Your task to perform on an android device: View the shopping cart on ebay. Add "razer blade" to the cart on ebay Image 0: 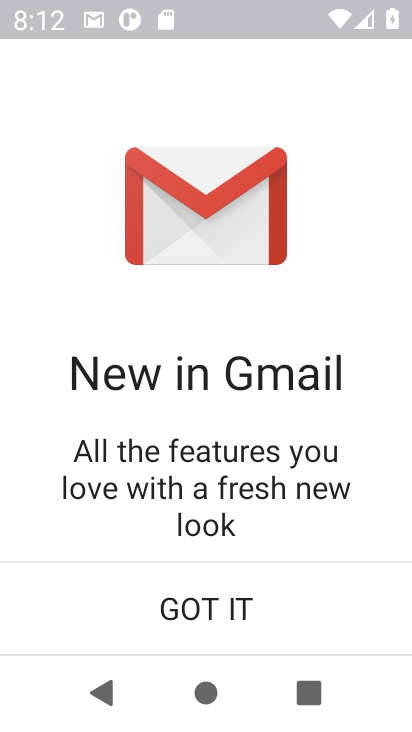
Step 0: click (281, 588)
Your task to perform on an android device: View the shopping cart on ebay. Add "razer blade" to the cart on ebay Image 1: 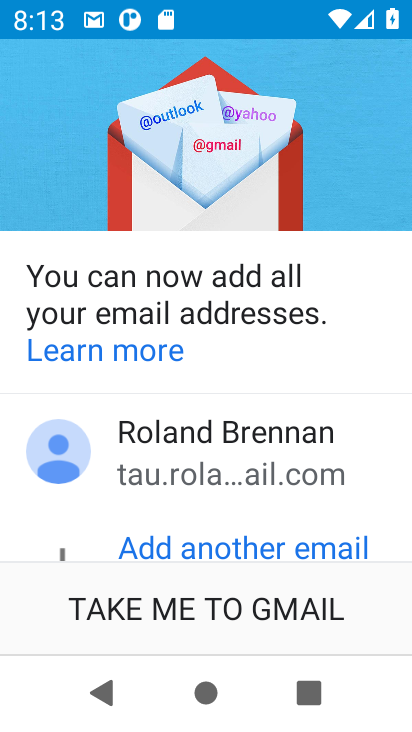
Step 1: press home button
Your task to perform on an android device: View the shopping cart on ebay. Add "razer blade" to the cart on ebay Image 2: 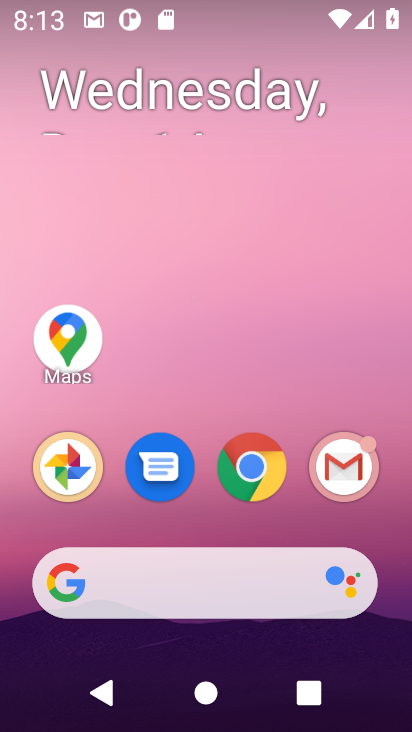
Step 2: click (256, 455)
Your task to perform on an android device: View the shopping cart on ebay. Add "razer blade" to the cart on ebay Image 3: 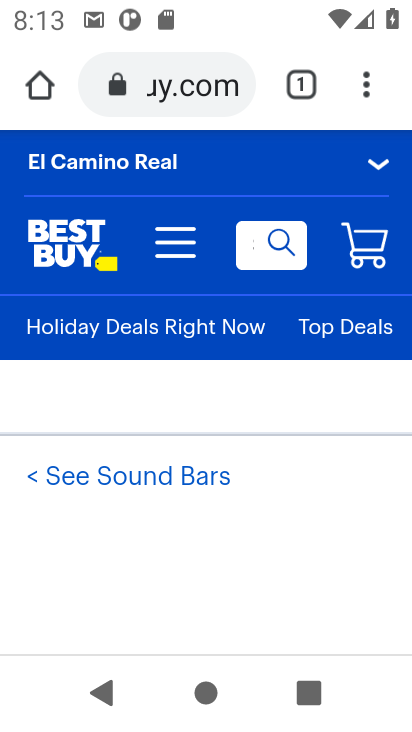
Step 3: click (211, 84)
Your task to perform on an android device: View the shopping cart on ebay. Add "razer blade" to the cart on ebay Image 4: 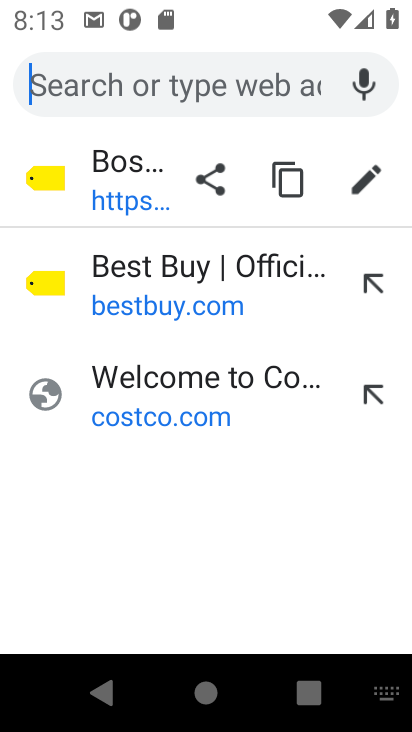
Step 4: type "ebay"
Your task to perform on an android device: View the shopping cart on ebay. Add "razer blade" to the cart on ebay Image 5: 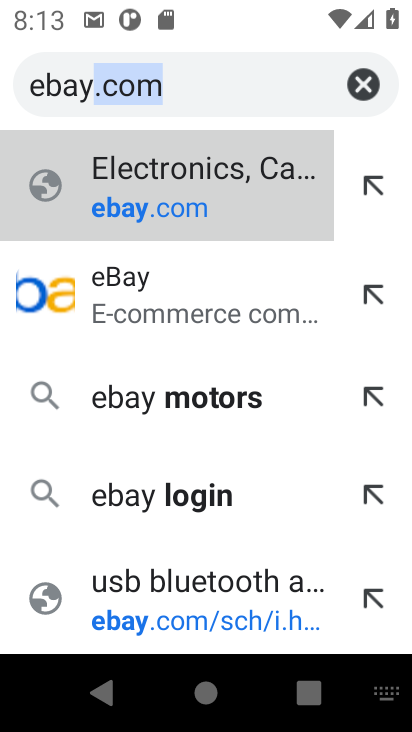
Step 5: click (113, 223)
Your task to perform on an android device: View the shopping cart on ebay. Add "razer blade" to the cart on ebay Image 6: 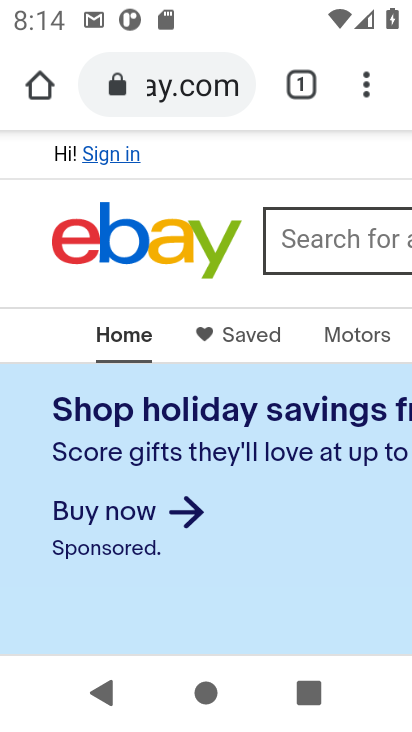
Step 6: click (311, 259)
Your task to perform on an android device: View the shopping cart on ebay. Add "razer blade" to the cart on ebay Image 7: 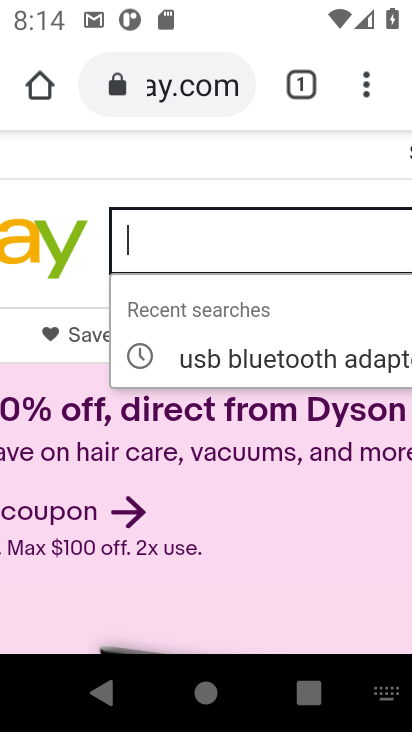
Step 7: type "razer blade"
Your task to perform on an android device: View the shopping cart on ebay. Add "razer blade" to the cart on ebay Image 8: 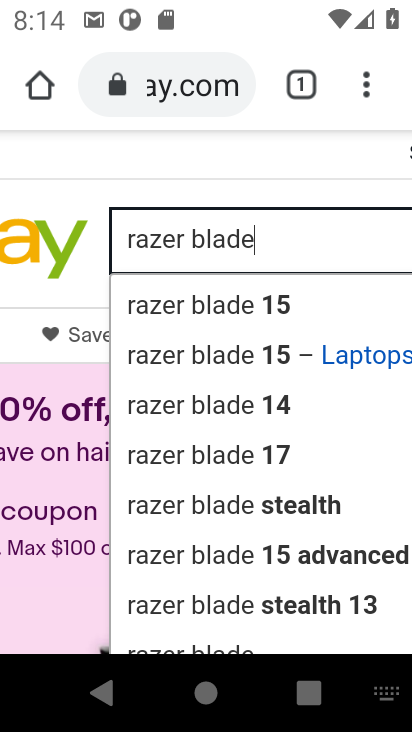
Step 8: click (245, 308)
Your task to perform on an android device: View the shopping cart on ebay. Add "razer blade" to the cart on ebay Image 9: 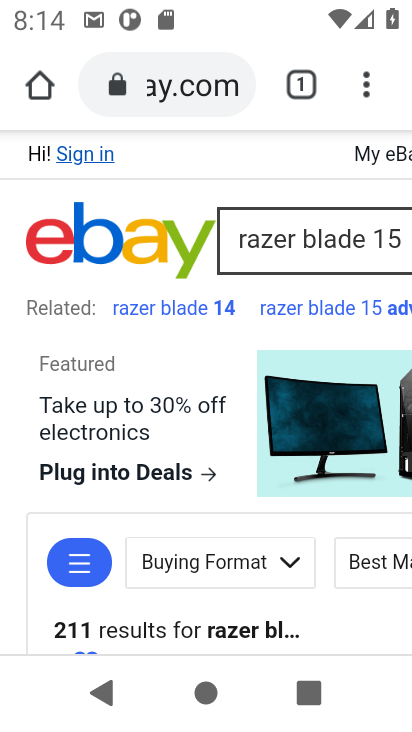
Step 9: drag from (105, 599) to (122, 333)
Your task to perform on an android device: View the shopping cart on ebay. Add "razer blade" to the cart on ebay Image 10: 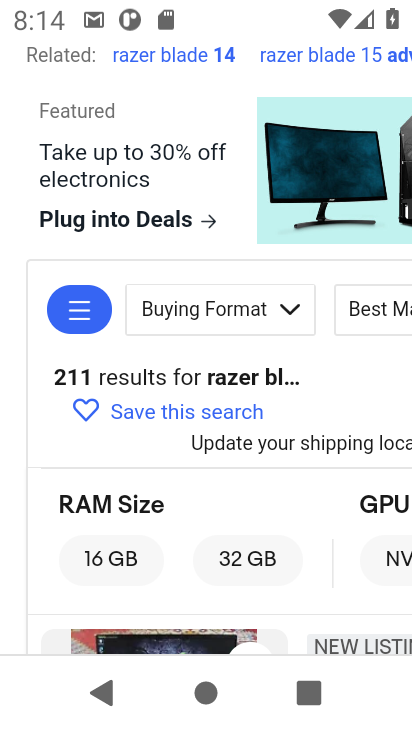
Step 10: click (237, 581)
Your task to perform on an android device: View the shopping cart on ebay. Add "razer blade" to the cart on ebay Image 11: 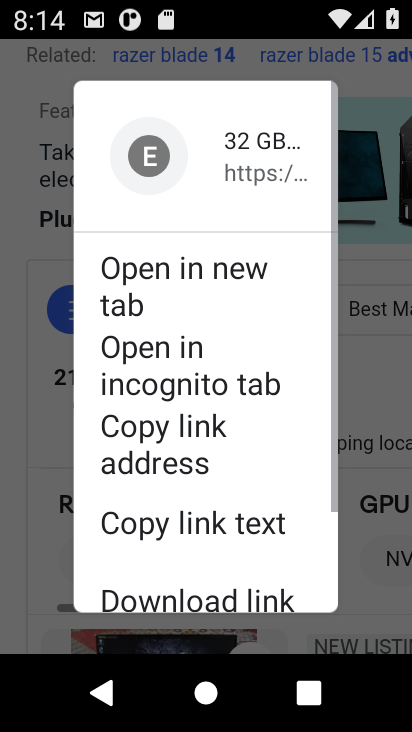
Step 11: click (166, 174)
Your task to perform on an android device: View the shopping cart on ebay. Add "razer blade" to the cart on ebay Image 12: 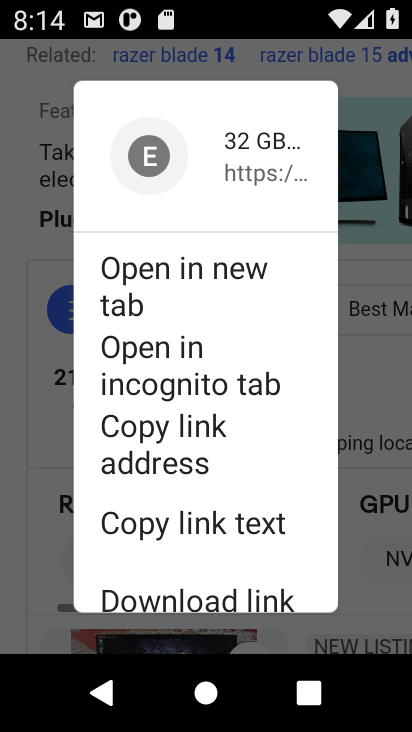
Step 12: task complete